Your task to perform on an android device: turn off improve location accuracy Image 0: 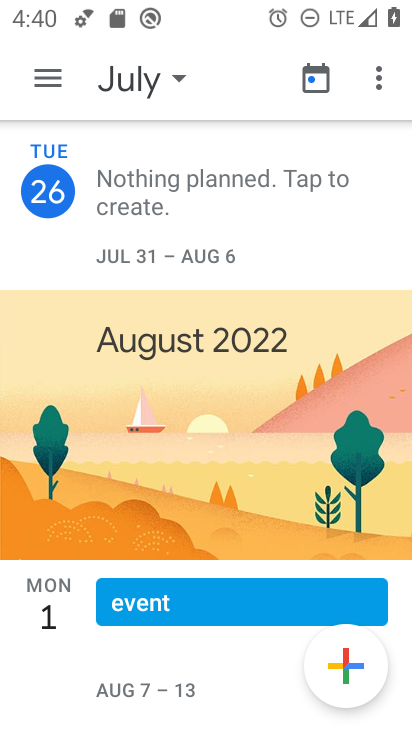
Step 0: press back button
Your task to perform on an android device: turn off improve location accuracy Image 1: 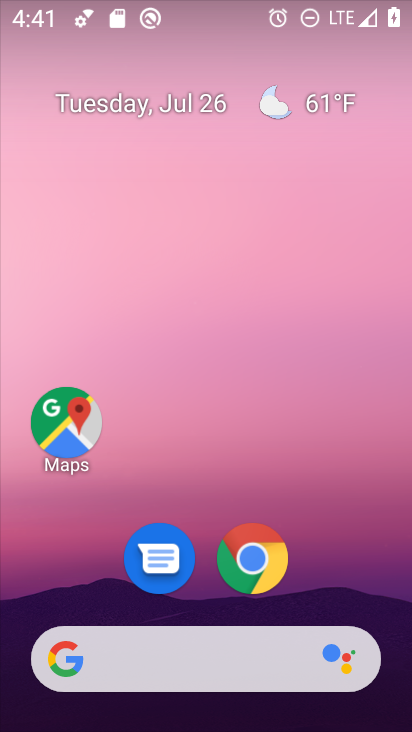
Step 1: drag from (78, 575) to (258, 13)
Your task to perform on an android device: turn off improve location accuracy Image 2: 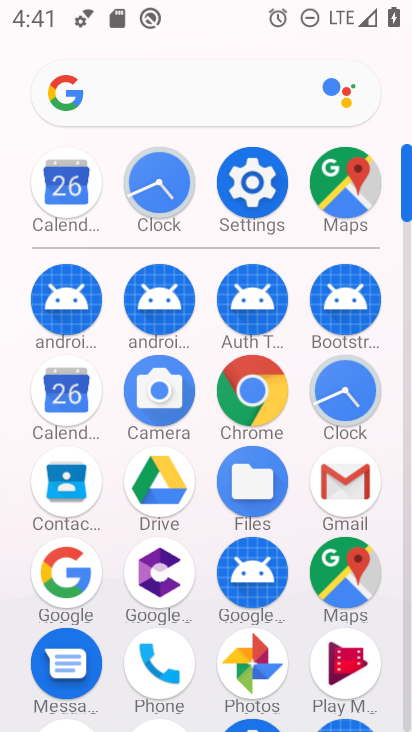
Step 2: click (256, 178)
Your task to perform on an android device: turn off improve location accuracy Image 3: 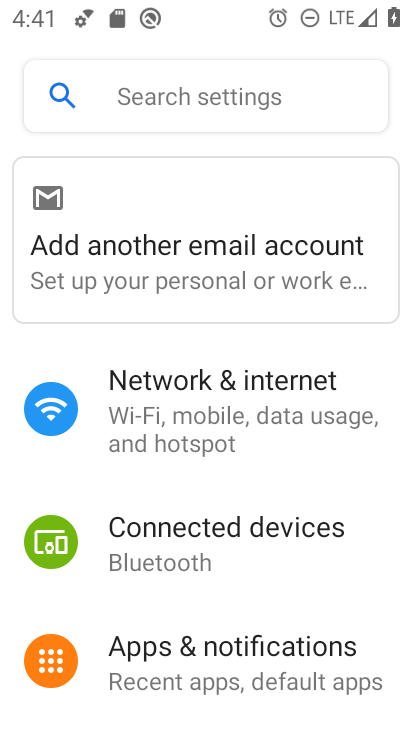
Step 3: drag from (145, 594) to (271, 127)
Your task to perform on an android device: turn off improve location accuracy Image 4: 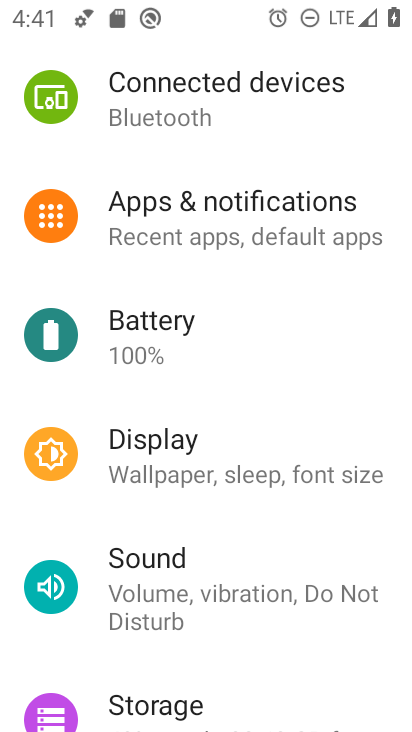
Step 4: drag from (163, 644) to (277, 251)
Your task to perform on an android device: turn off improve location accuracy Image 5: 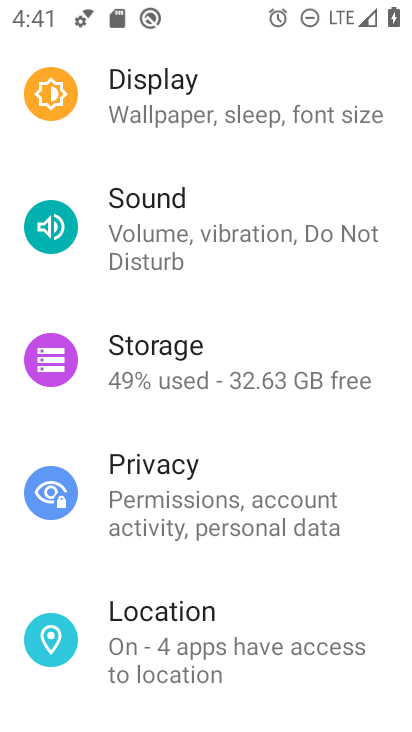
Step 5: click (170, 637)
Your task to perform on an android device: turn off improve location accuracy Image 6: 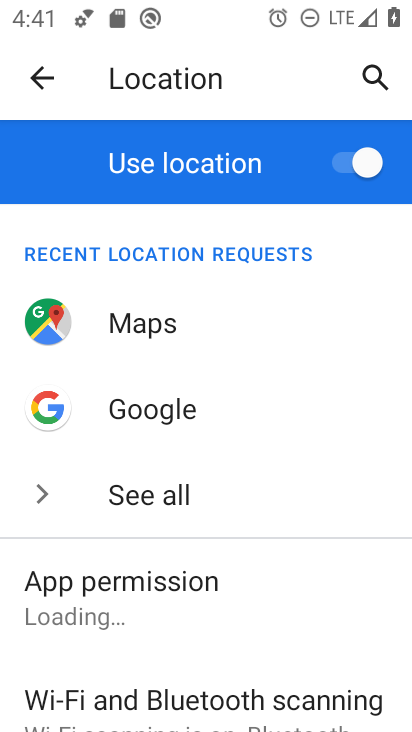
Step 6: drag from (194, 646) to (302, 165)
Your task to perform on an android device: turn off improve location accuracy Image 7: 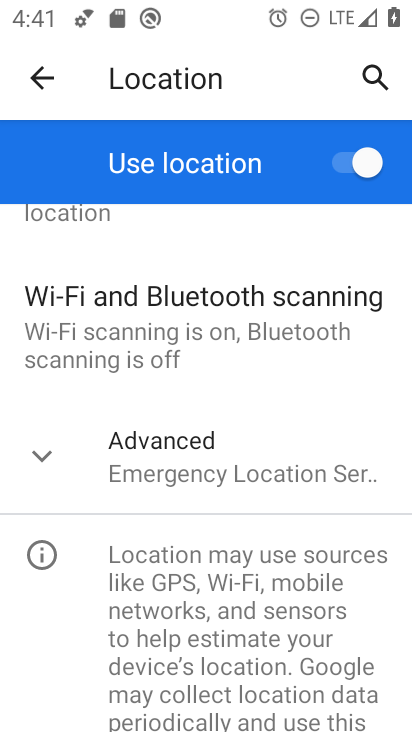
Step 7: click (172, 452)
Your task to perform on an android device: turn off improve location accuracy Image 8: 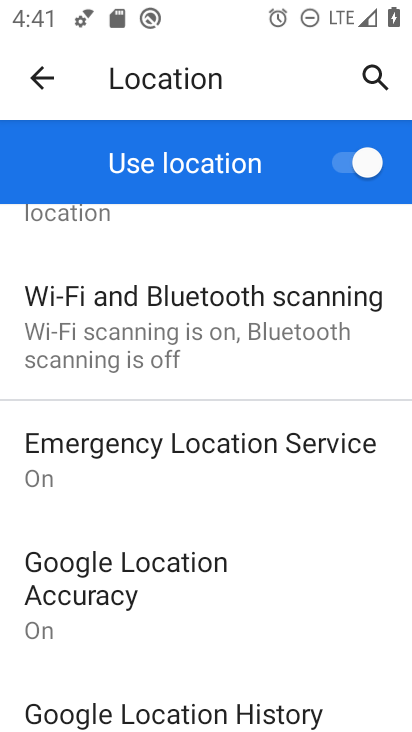
Step 8: click (111, 600)
Your task to perform on an android device: turn off improve location accuracy Image 9: 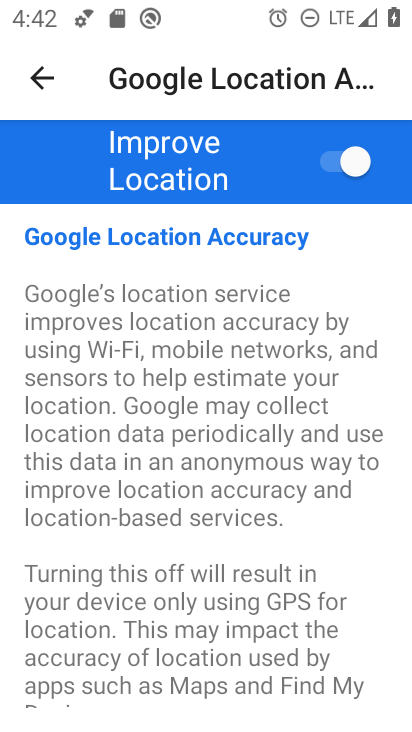
Step 9: click (354, 164)
Your task to perform on an android device: turn off improve location accuracy Image 10: 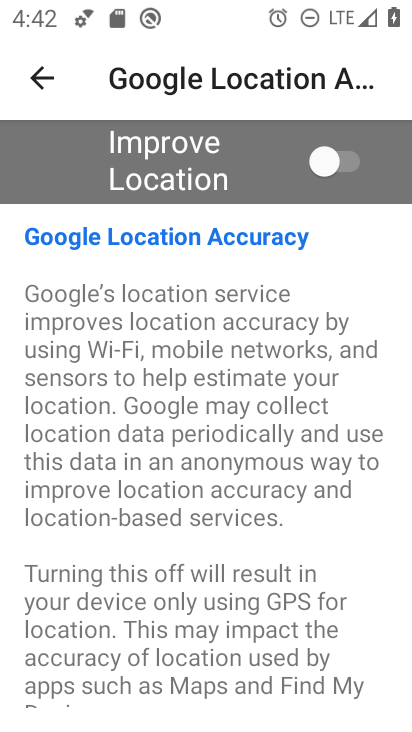
Step 10: task complete